Your task to perform on an android device: delete the emails in spam in the gmail app Image 0: 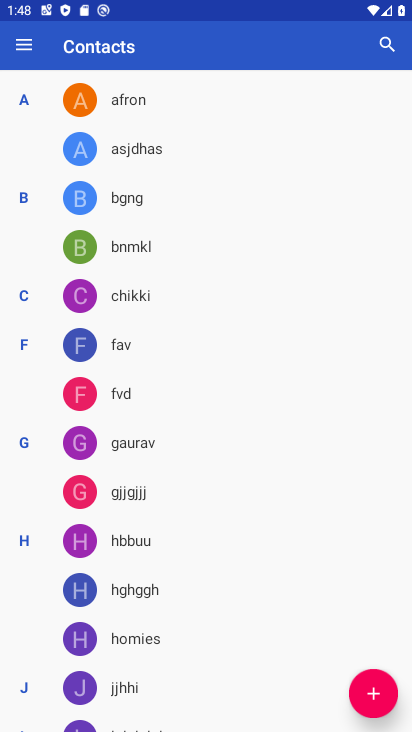
Step 0: press home button
Your task to perform on an android device: delete the emails in spam in the gmail app Image 1: 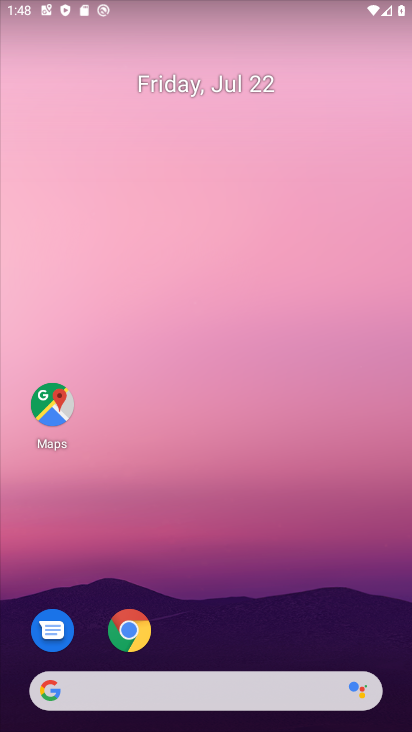
Step 1: drag from (177, 488) to (163, 268)
Your task to perform on an android device: delete the emails in spam in the gmail app Image 2: 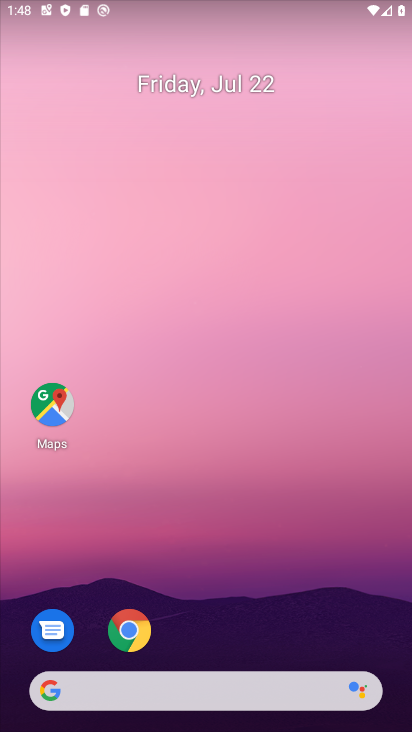
Step 2: drag from (192, 625) to (193, 144)
Your task to perform on an android device: delete the emails in spam in the gmail app Image 3: 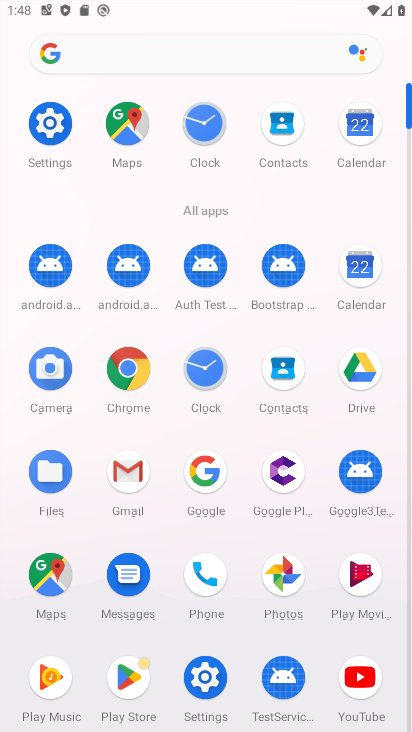
Step 3: click (125, 479)
Your task to perform on an android device: delete the emails in spam in the gmail app Image 4: 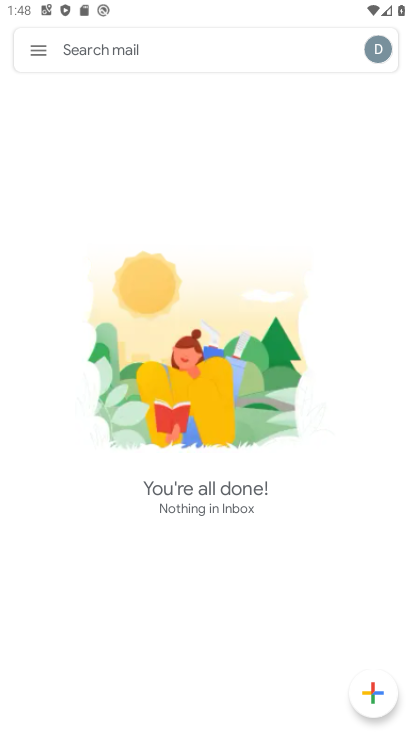
Step 4: click (44, 45)
Your task to perform on an android device: delete the emails in spam in the gmail app Image 5: 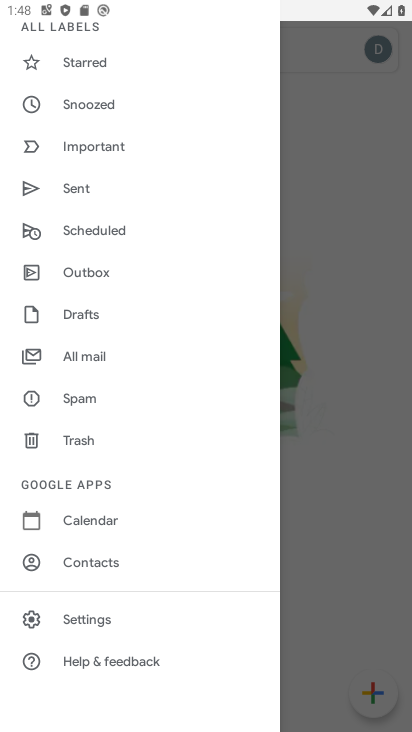
Step 5: click (69, 402)
Your task to perform on an android device: delete the emails in spam in the gmail app Image 6: 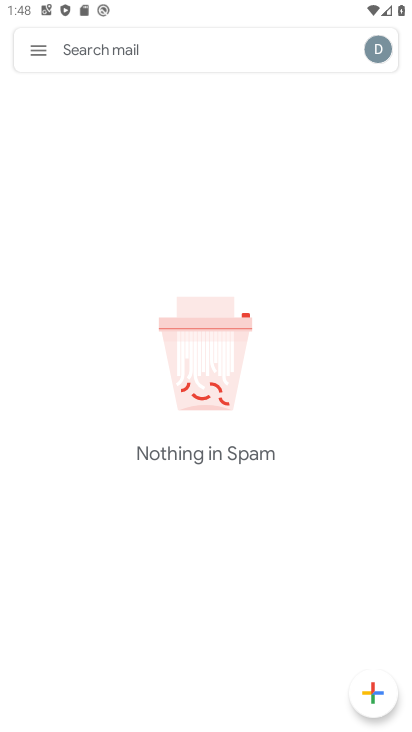
Step 6: task complete